Your task to perform on an android device: Open the Play Movies app and select the watchlist tab. Image 0: 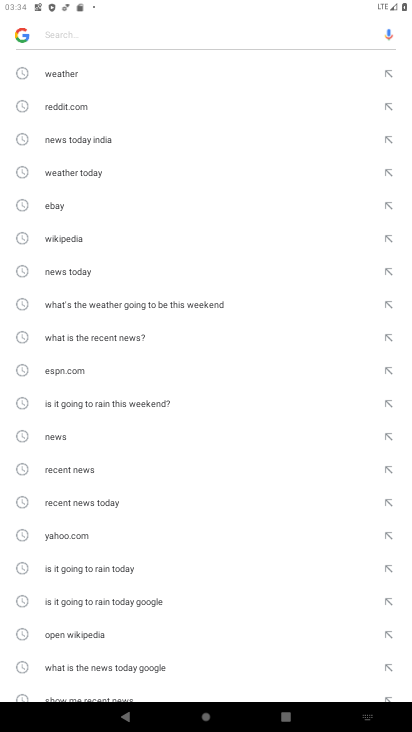
Step 0: press home button
Your task to perform on an android device: Open the Play Movies app and select the watchlist tab. Image 1: 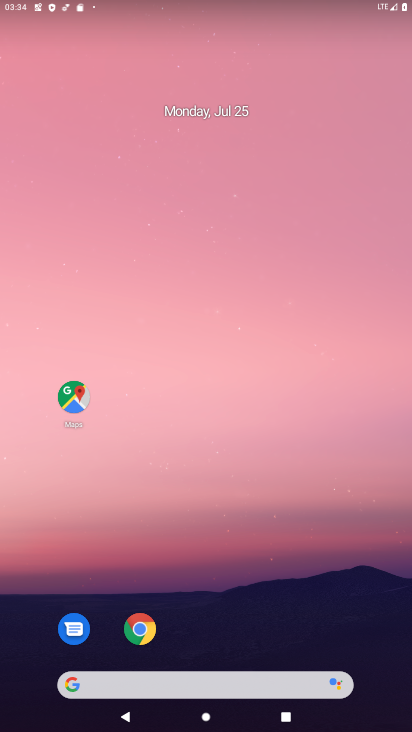
Step 1: drag from (268, 630) to (263, 59)
Your task to perform on an android device: Open the Play Movies app and select the watchlist tab. Image 2: 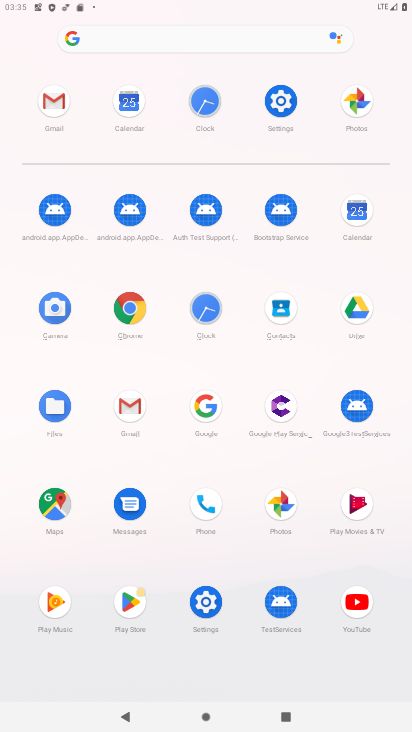
Step 2: click (349, 497)
Your task to perform on an android device: Open the Play Movies app and select the watchlist tab. Image 3: 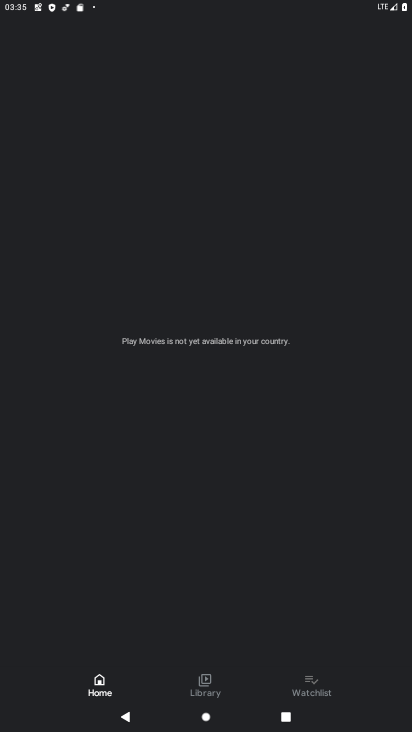
Step 3: click (318, 678)
Your task to perform on an android device: Open the Play Movies app and select the watchlist tab. Image 4: 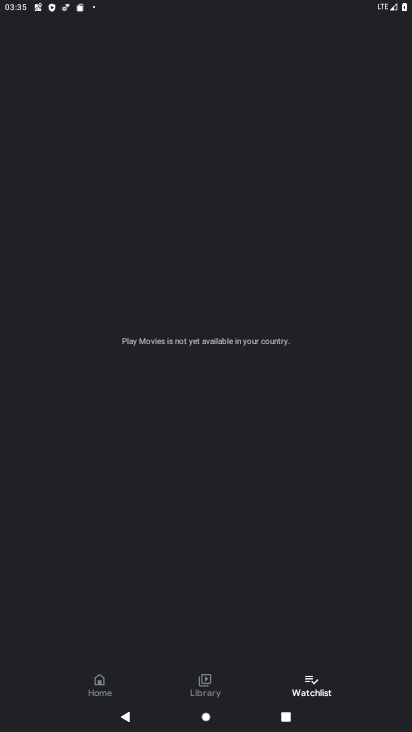
Step 4: task complete